Your task to perform on an android device: Open ESPN.com Image 0: 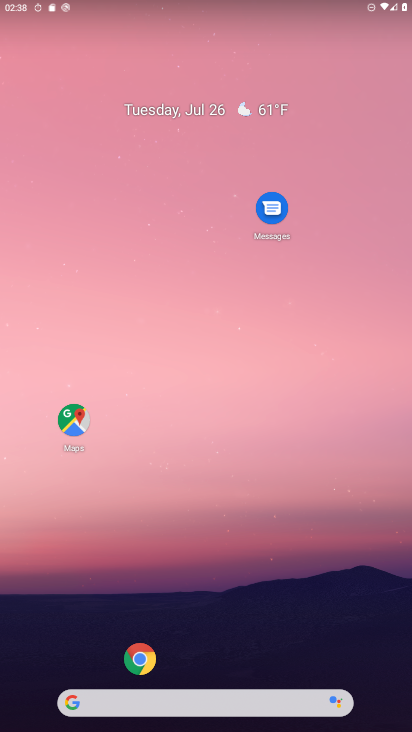
Step 0: click (133, 706)
Your task to perform on an android device: Open ESPN.com Image 1: 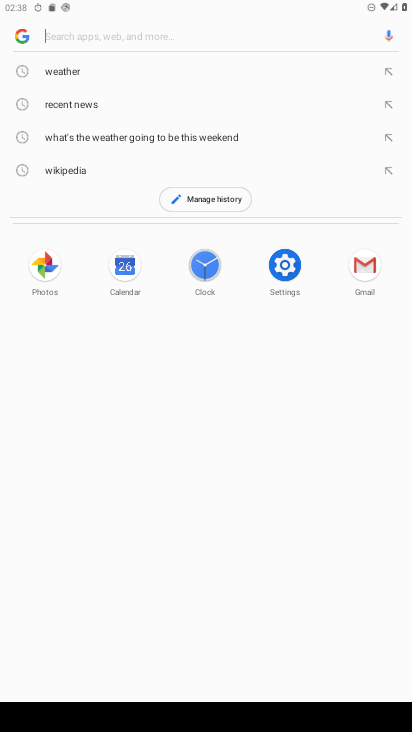
Step 1: type "ESPN.com"
Your task to perform on an android device: Open ESPN.com Image 2: 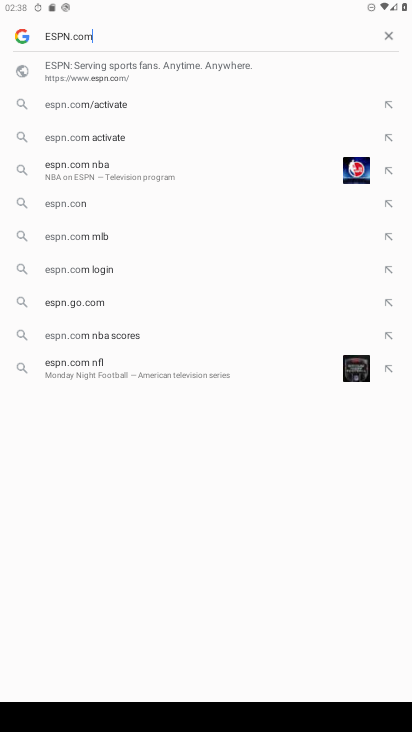
Step 2: type ""
Your task to perform on an android device: Open ESPN.com Image 3: 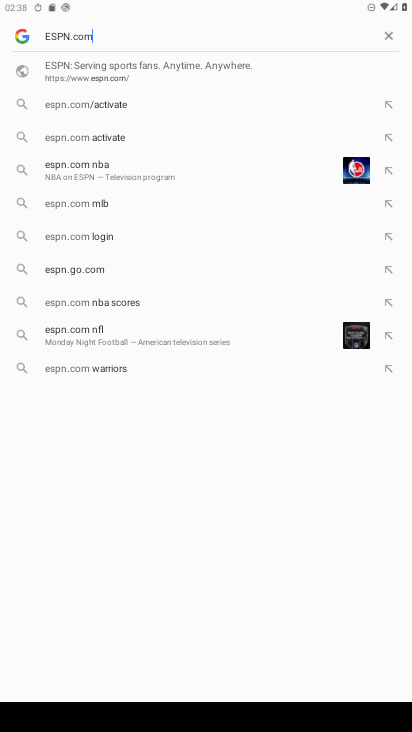
Step 3: click (45, 70)
Your task to perform on an android device: Open ESPN.com Image 4: 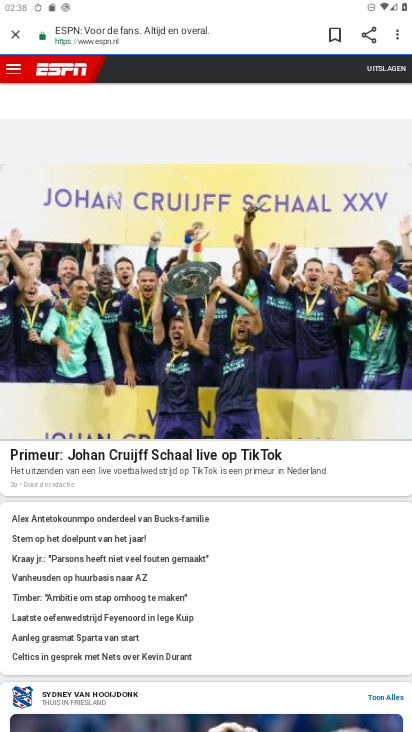
Step 4: task complete